Your task to perform on an android device: What's the weather? Image 0: 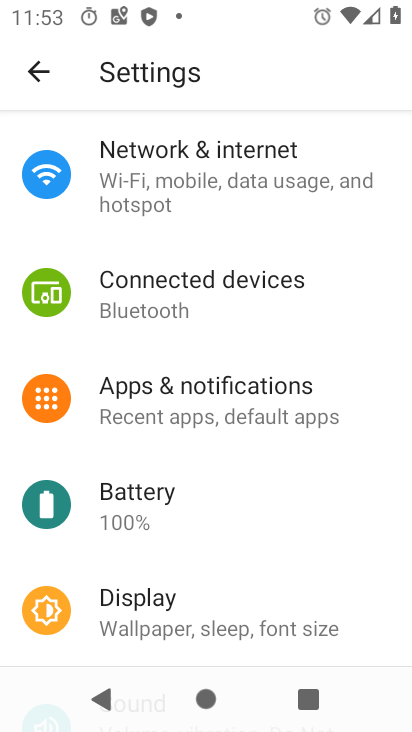
Step 0: press home button
Your task to perform on an android device: What's the weather? Image 1: 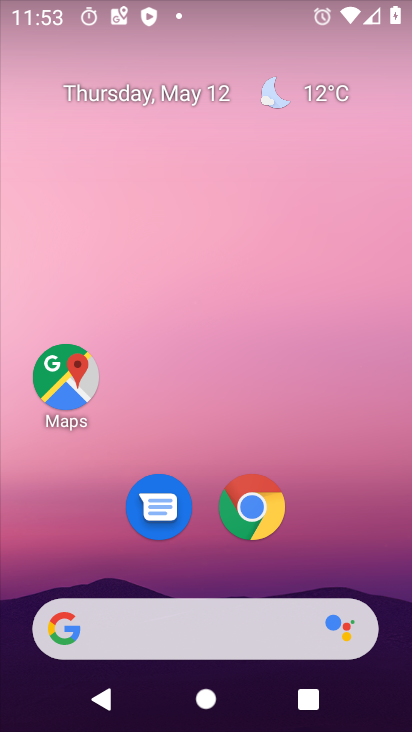
Step 1: click (282, 99)
Your task to perform on an android device: What's the weather? Image 2: 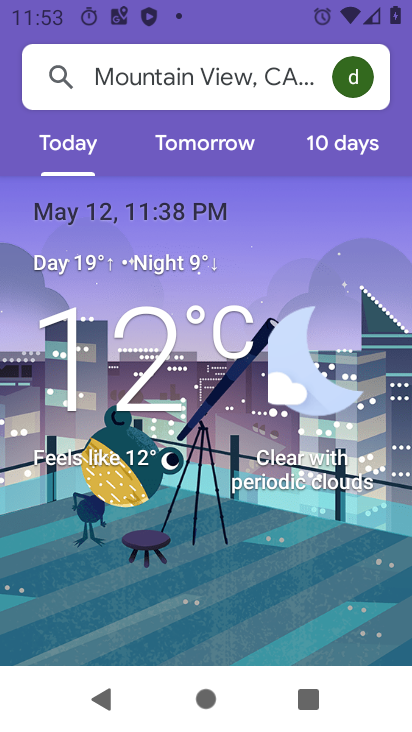
Step 2: task complete